Your task to perform on an android device: Open wifi settings Image 0: 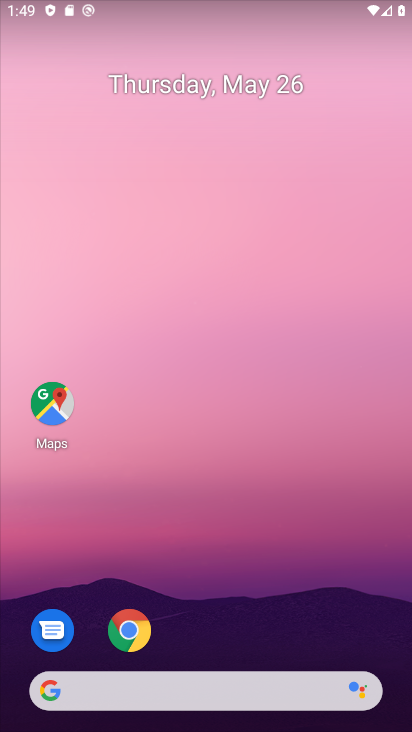
Step 0: drag from (220, 441) to (285, 29)
Your task to perform on an android device: Open wifi settings Image 1: 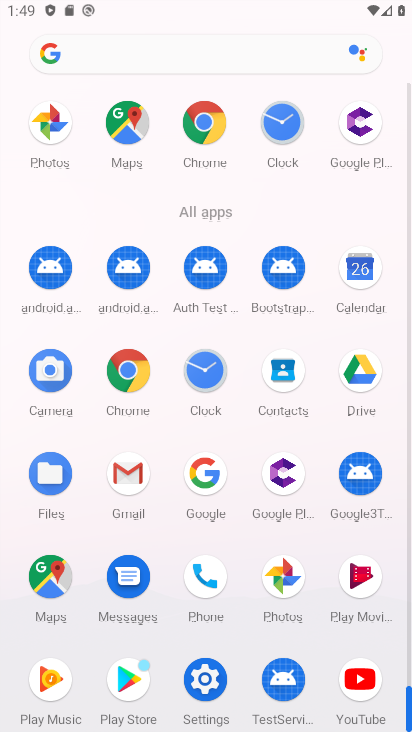
Step 1: click (202, 685)
Your task to perform on an android device: Open wifi settings Image 2: 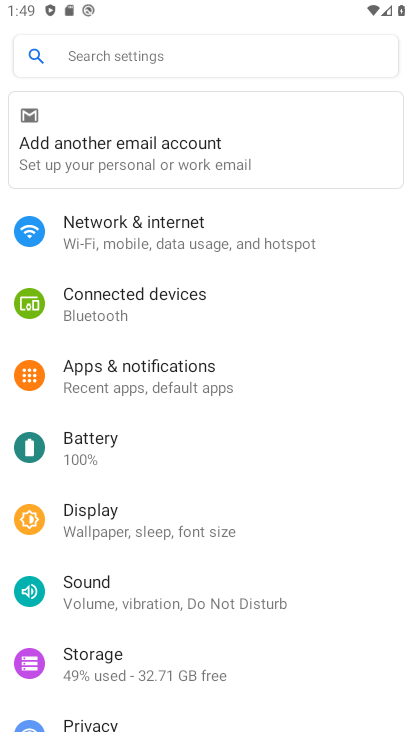
Step 2: click (202, 162)
Your task to perform on an android device: Open wifi settings Image 3: 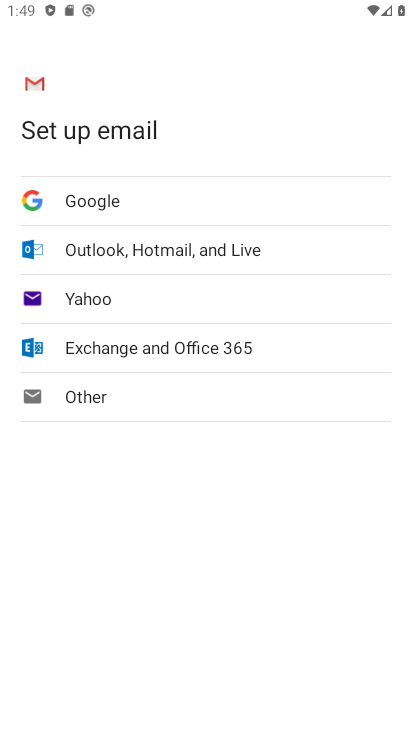
Step 3: press back button
Your task to perform on an android device: Open wifi settings Image 4: 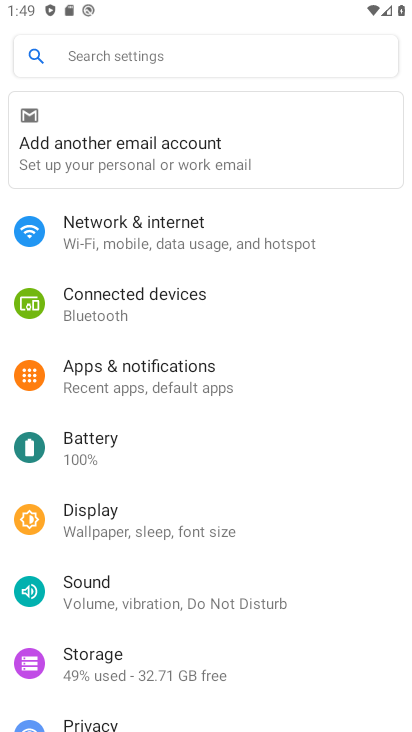
Step 4: click (267, 230)
Your task to perform on an android device: Open wifi settings Image 5: 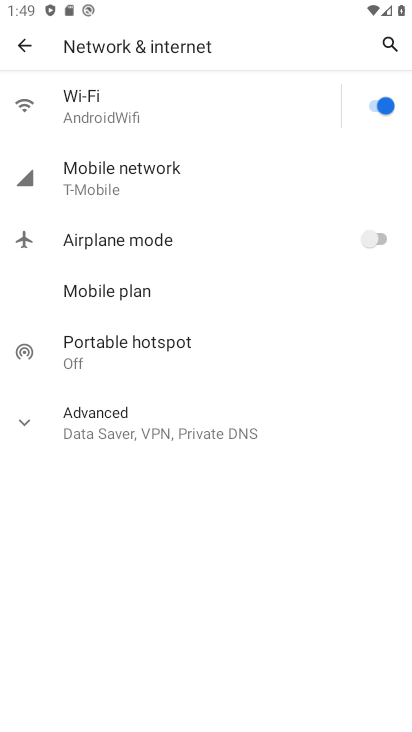
Step 5: task complete